Your task to perform on an android device: Show me popular videos on Youtube Image 0: 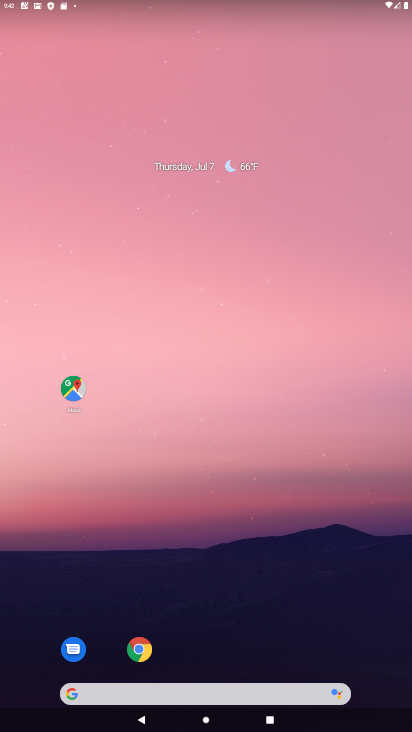
Step 0: drag from (235, 289) to (237, 115)
Your task to perform on an android device: Show me popular videos on Youtube Image 1: 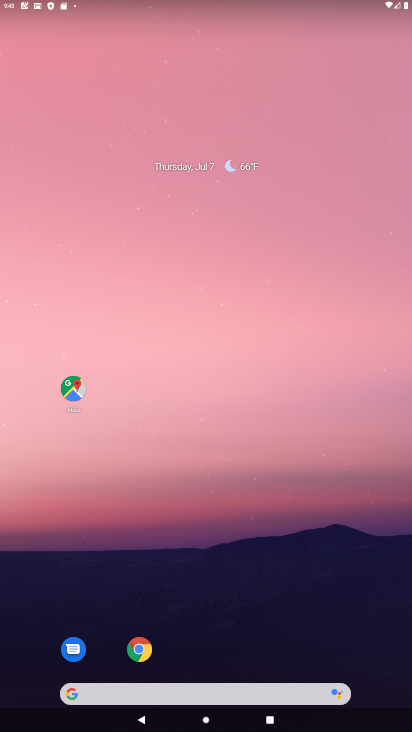
Step 1: drag from (196, 516) to (235, 61)
Your task to perform on an android device: Show me popular videos on Youtube Image 2: 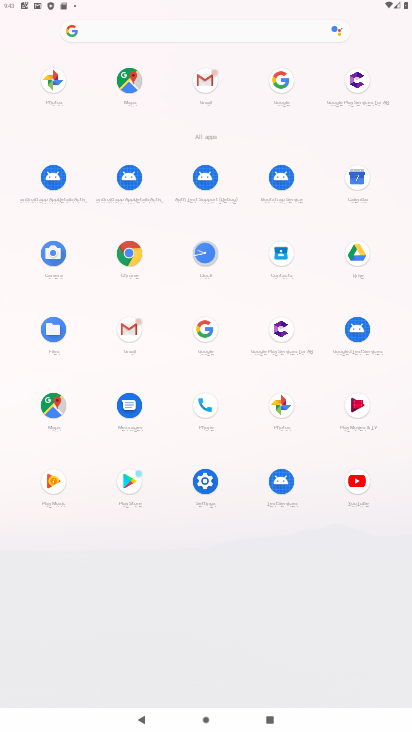
Step 2: click (353, 492)
Your task to perform on an android device: Show me popular videos on Youtube Image 3: 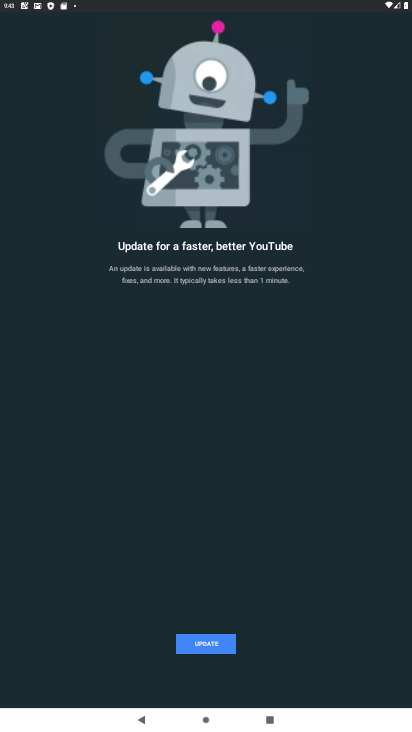
Step 3: click (198, 649)
Your task to perform on an android device: Show me popular videos on Youtube Image 4: 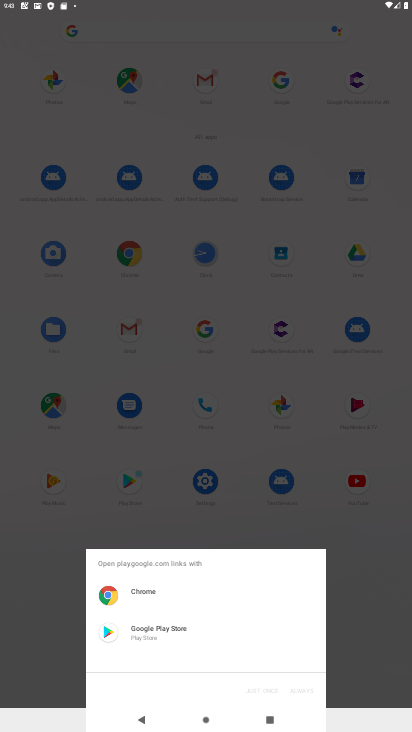
Step 4: click (175, 640)
Your task to perform on an android device: Show me popular videos on Youtube Image 5: 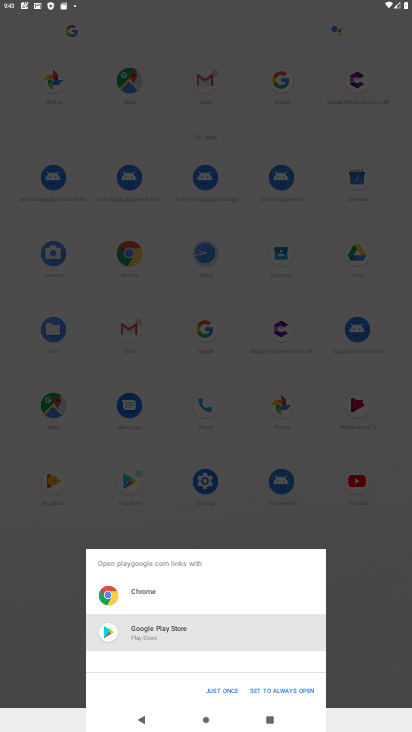
Step 5: click (266, 694)
Your task to perform on an android device: Show me popular videos on Youtube Image 6: 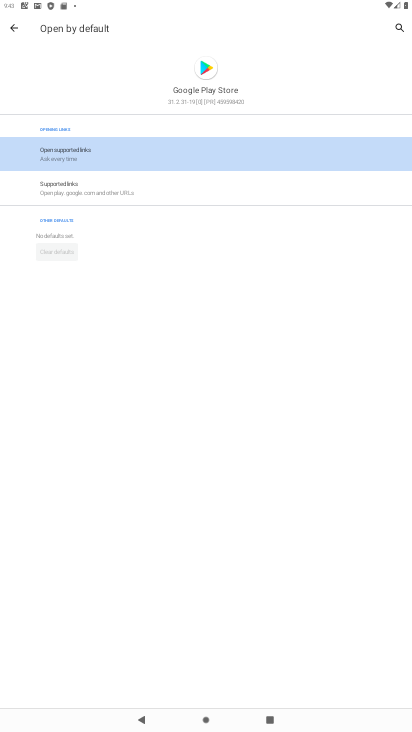
Step 6: click (81, 159)
Your task to perform on an android device: Show me popular videos on Youtube Image 7: 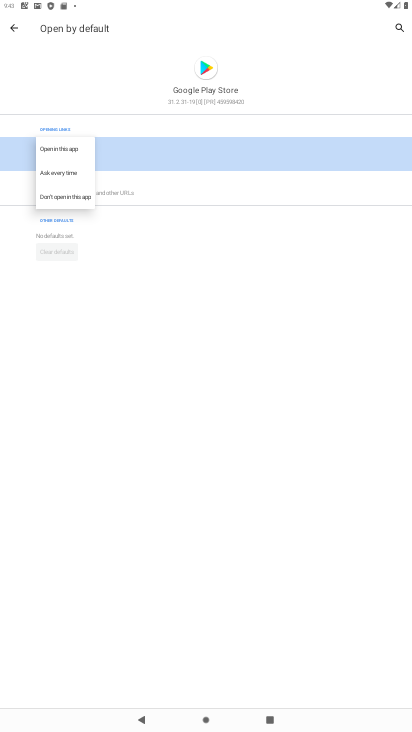
Step 7: click (75, 154)
Your task to perform on an android device: Show me popular videos on Youtube Image 8: 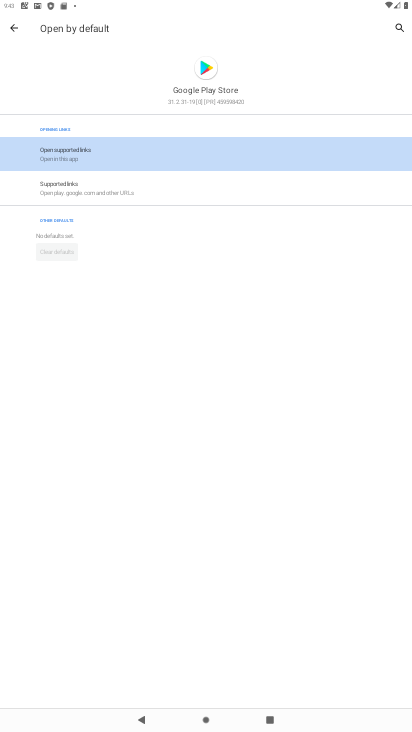
Step 8: click (12, 30)
Your task to perform on an android device: Show me popular videos on Youtube Image 9: 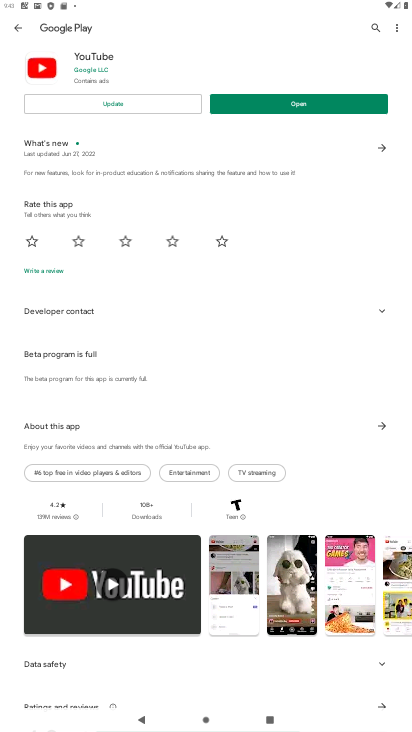
Step 9: click (125, 114)
Your task to perform on an android device: Show me popular videos on Youtube Image 10: 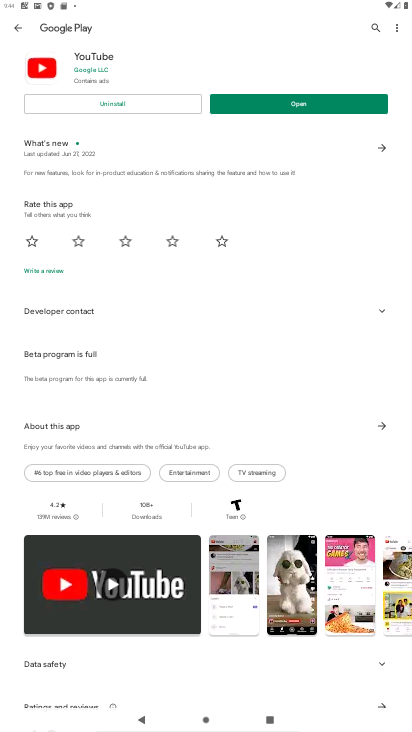
Step 10: click (295, 102)
Your task to perform on an android device: Show me popular videos on Youtube Image 11: 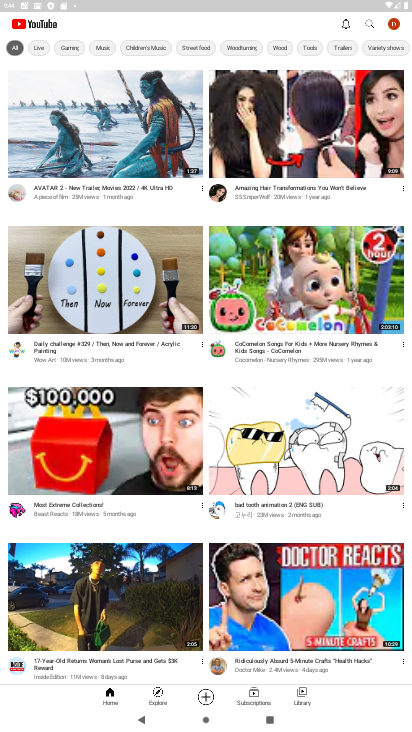
Step 11: task complete